Your task to perform on an android device: Open CNN.com Image 0: 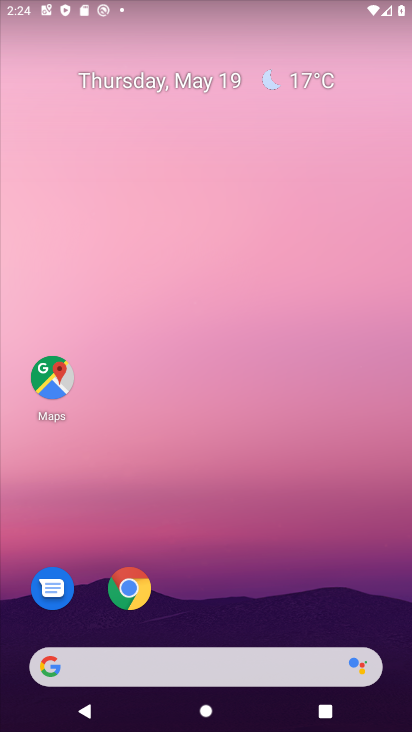
Step 0: click (135, 586)
Your task to perform on an android device: Open CNN.com Image 1: 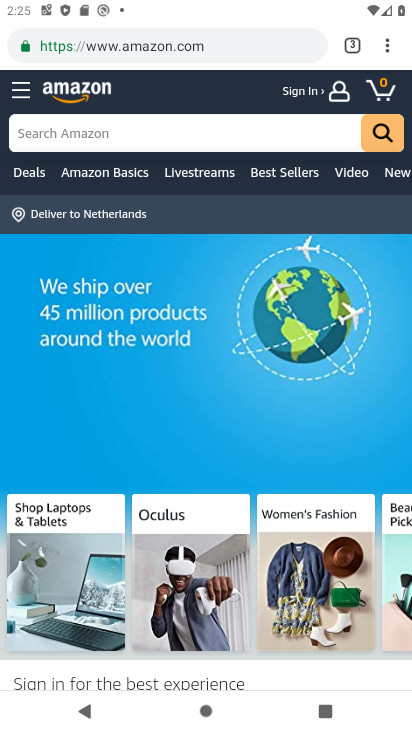
Step 1: click (101, 43)
Your task to perform on an android device: Open CNN.com Image 2: 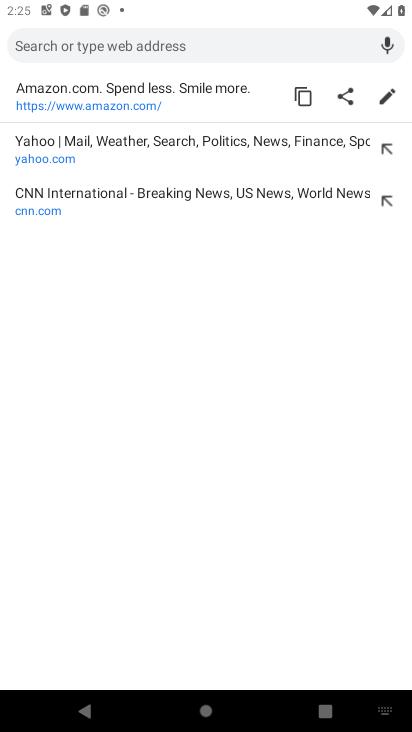
Step 2: click (43, 205)
Your task to perform on an android device: Open CNN.com Image 3: 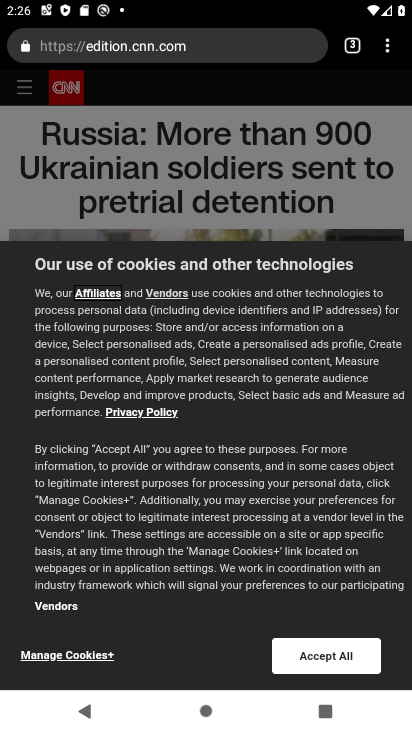
Step 3: task complete